Your task to perform on an android device: Search for Italian restaurants on Maps Image 0: 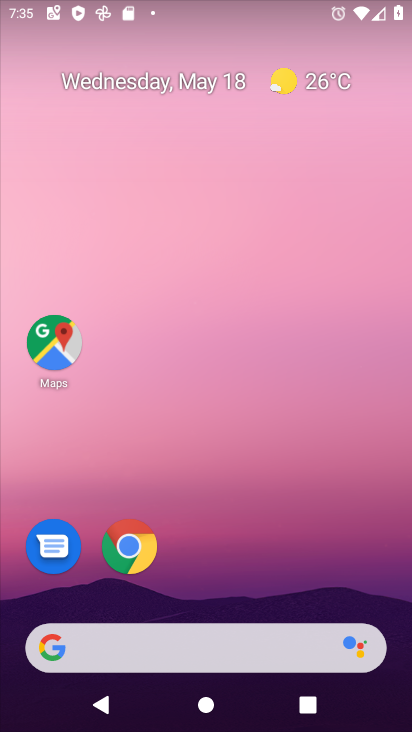
Step 0: drag from (389, 638) to (303, 30)
Your task to perform on an android device: Search for Italian restaurants on Maps Image 1: 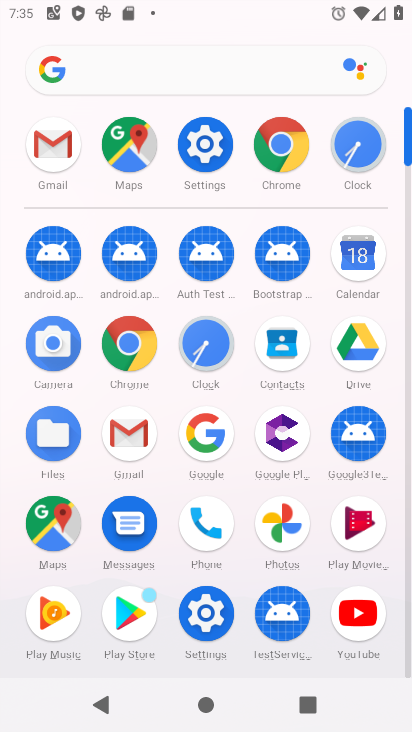
Step 1: click (64, 522)
Your task to perform on an android device: Search for Italian restaurants on Maps Image 2: 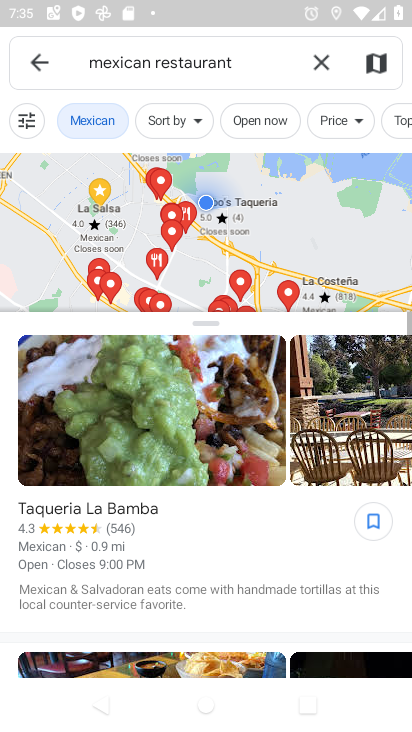
Step 2: click (328, 67)
Your task to perform on an android device: Search for Italian restaurants on Maps Image 3: 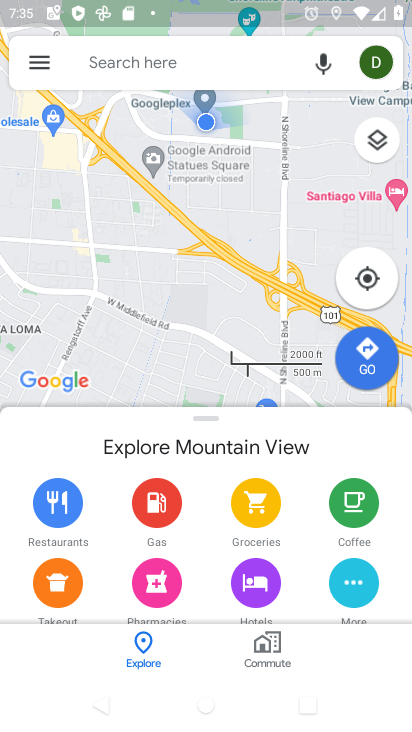
Step 3: click (198, 65)
Your task to perform on an android device: Search for Italian restaurants on Maps Image 4: 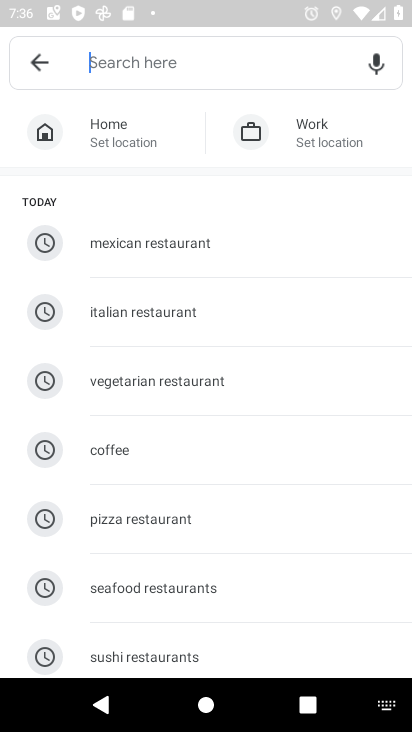
Step 4: click (189, 322)
Your task to perform on an android device: Search for Italian restaurants on Maps Image 5: 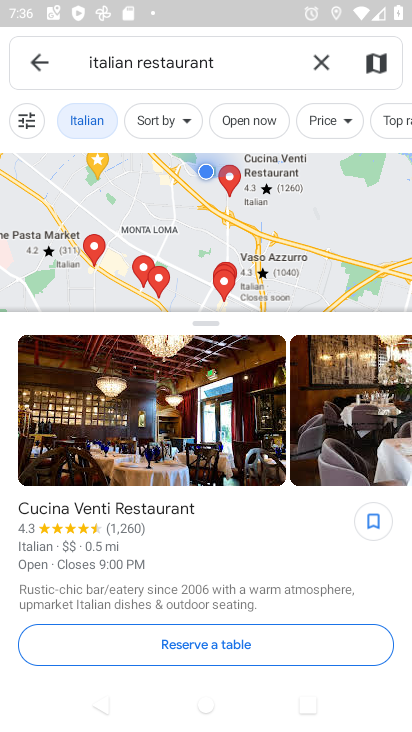
Step 5: task complete